Your task to perform on an android device: open app "Facebook" (install if not already installed) Image 0: 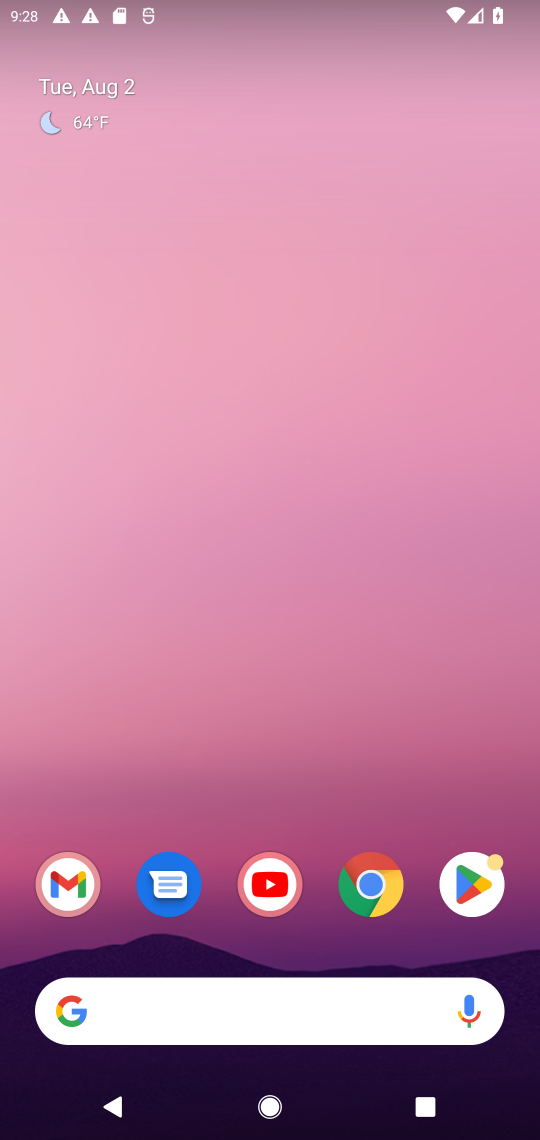
Step 0: press home button
Your task to perform on an android device: open app "Facebook" (install if not already installed) Image 1: 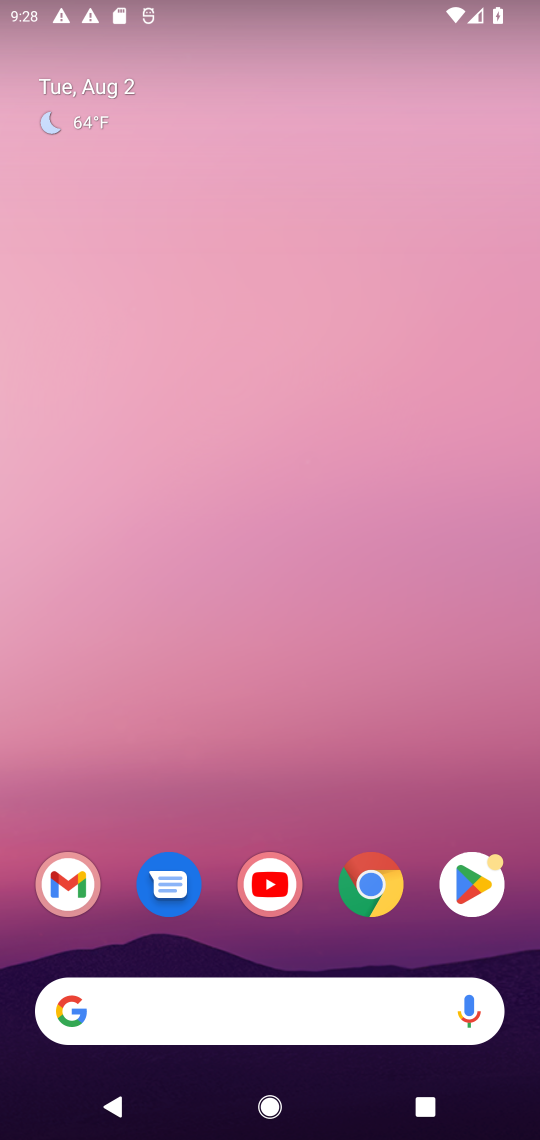
Step 1: click (476, 885)
Your task to perform on an android device: open app "Facebook" (install if not already installed) Image 2: 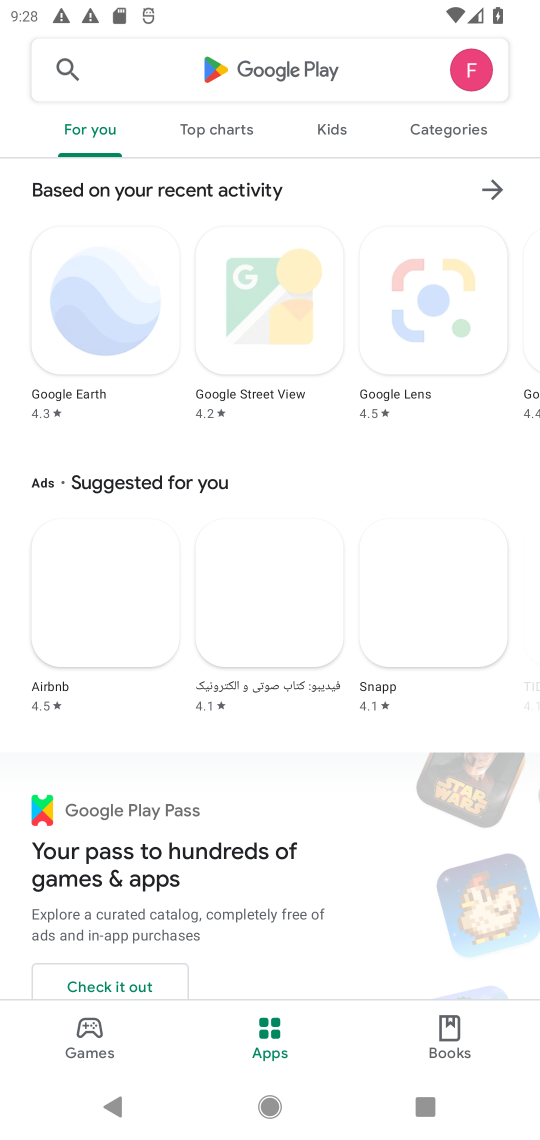
Step 2: click (327, 84)
Your task to perform on an android device: open app "Facebook" (install if not already installed) Image 3: 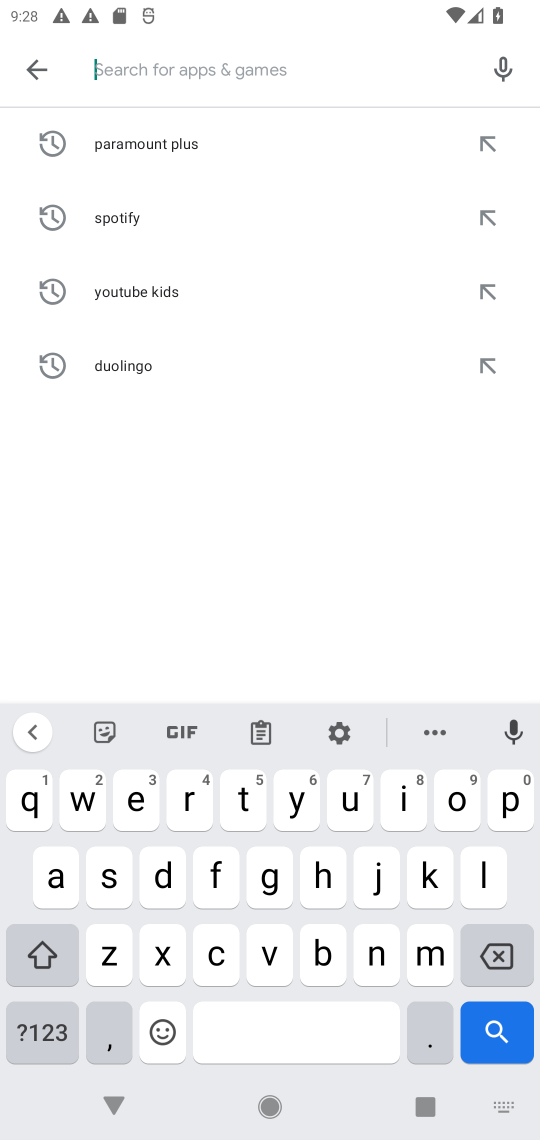
Step 3: click (211, 870)
Your task to perform on an android device: open app "Facebook" (install if not already installed) Image 4: 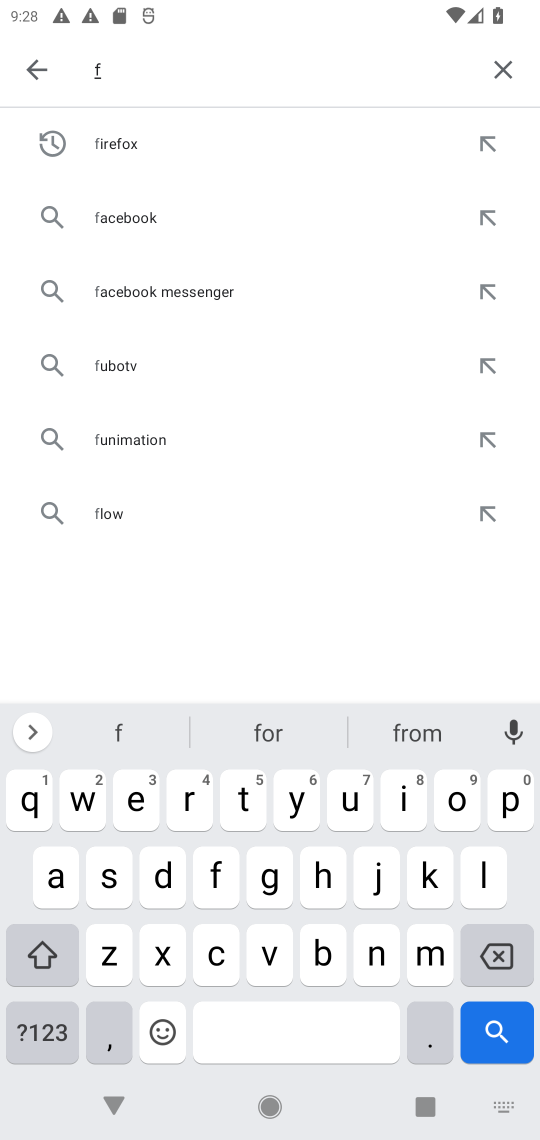
Step 4: click (51, 867)
Your task to perform on an android device: open app "Facebook" (install if not already installed) Image 5: 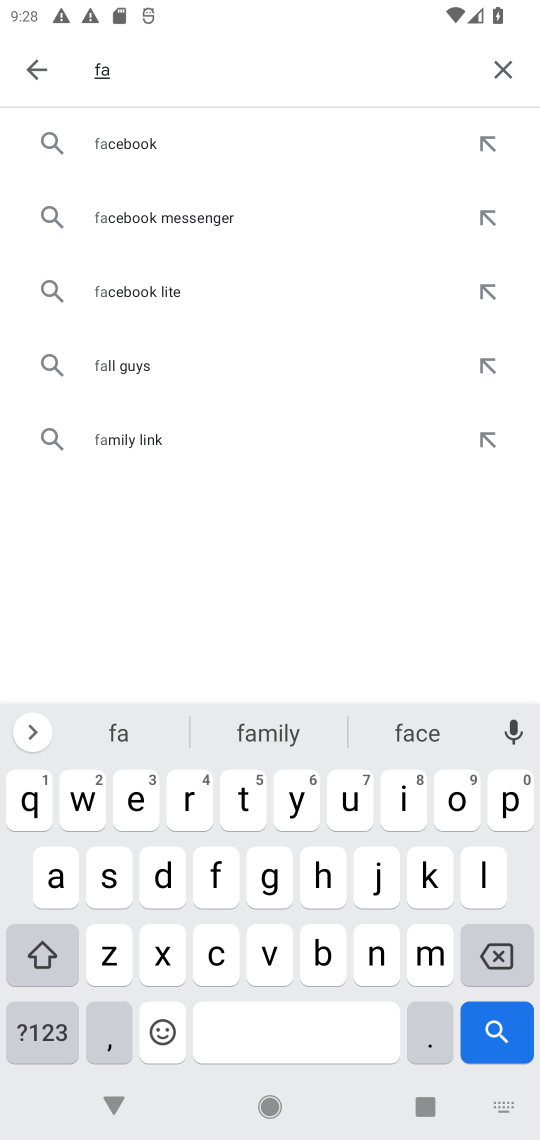
Step 5: click (215, 954)
Your task to perform on an android device: open app "Facebook" (install if not already installed) Image 6: 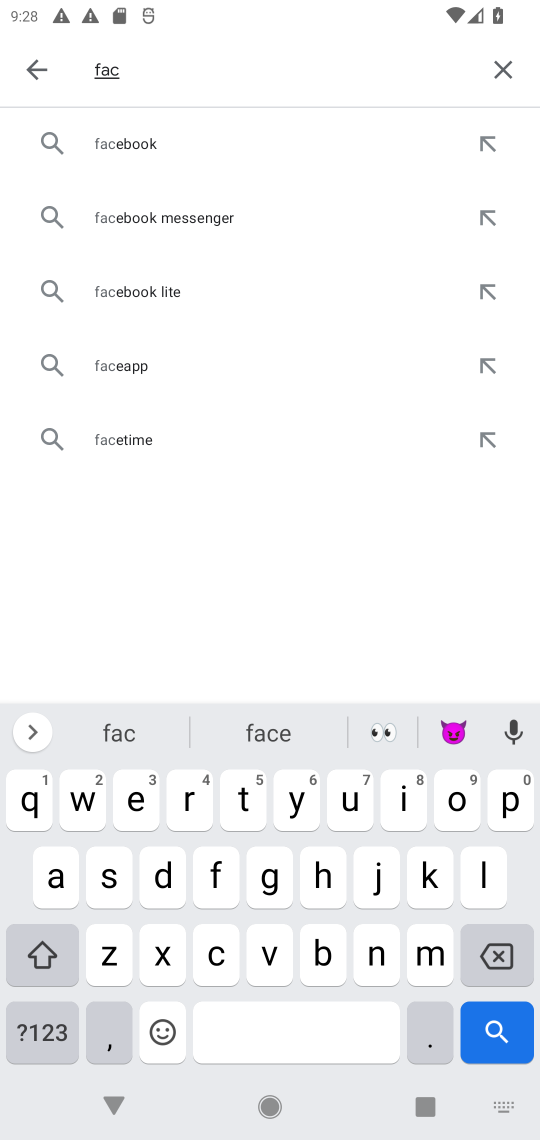
Step 6: click (138, 794)
Your task to perform on an android device: open app "Facebook" (install if not already installed) Image 7: 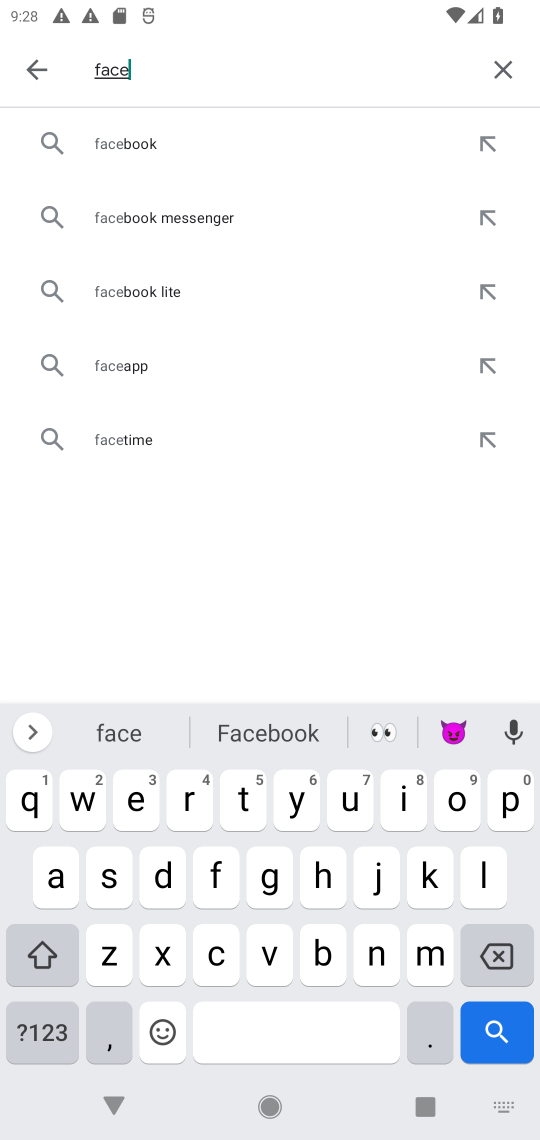
Step 7: click (157, 147)
Your task to perform on an android device: open app "Facebook" (install if not already installed) Image 8: 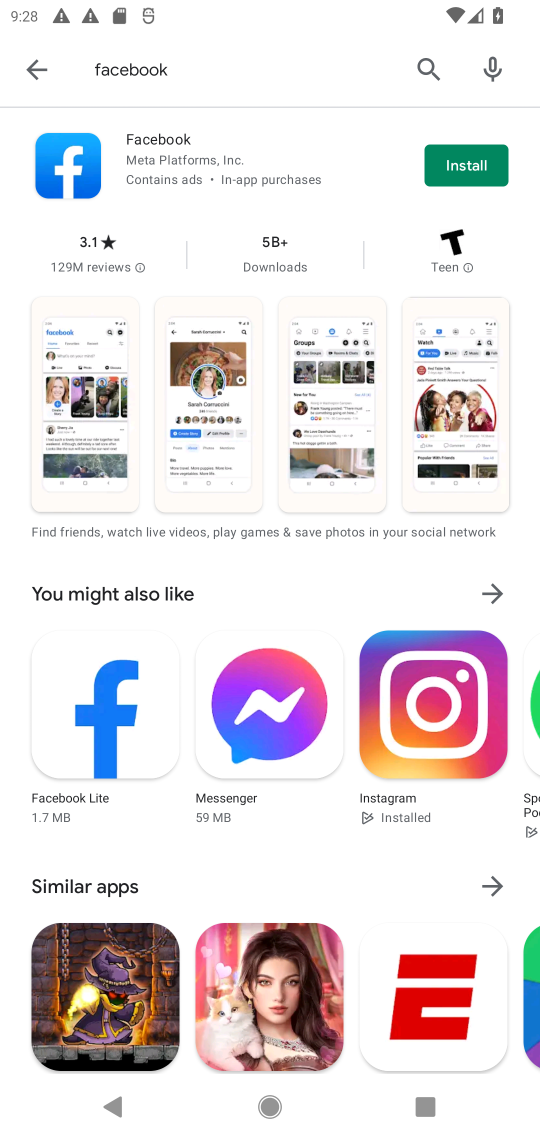
Step 8: click (469, 166)
Your task to perform on an android device: open app "Facebook" (install if not already installed) Image 9: 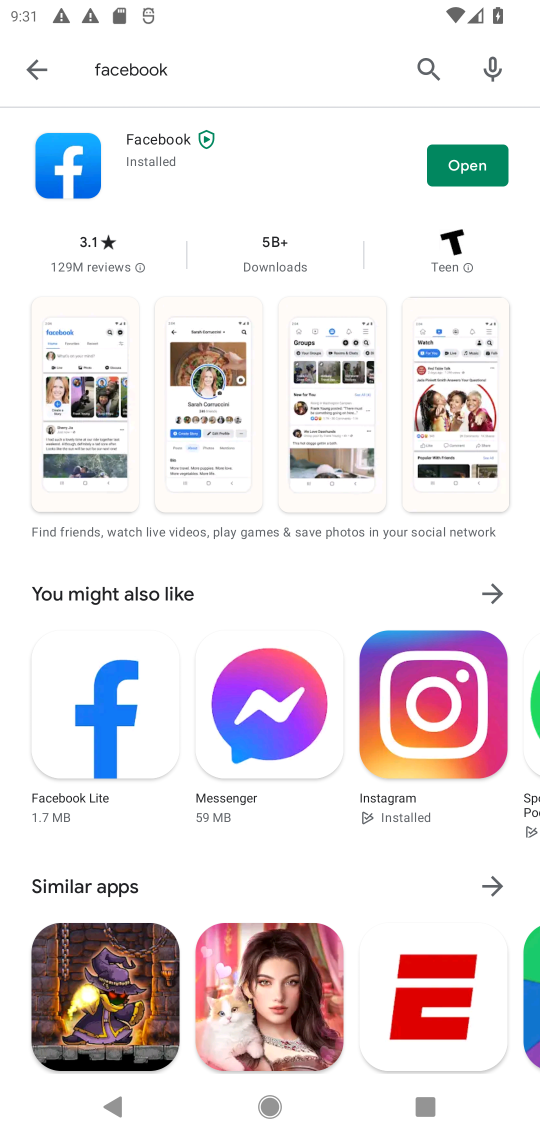
Step 9: click (469, 169)
Your task to perform on an android device: open app "Facebook" (install if not already installed) Image 10: 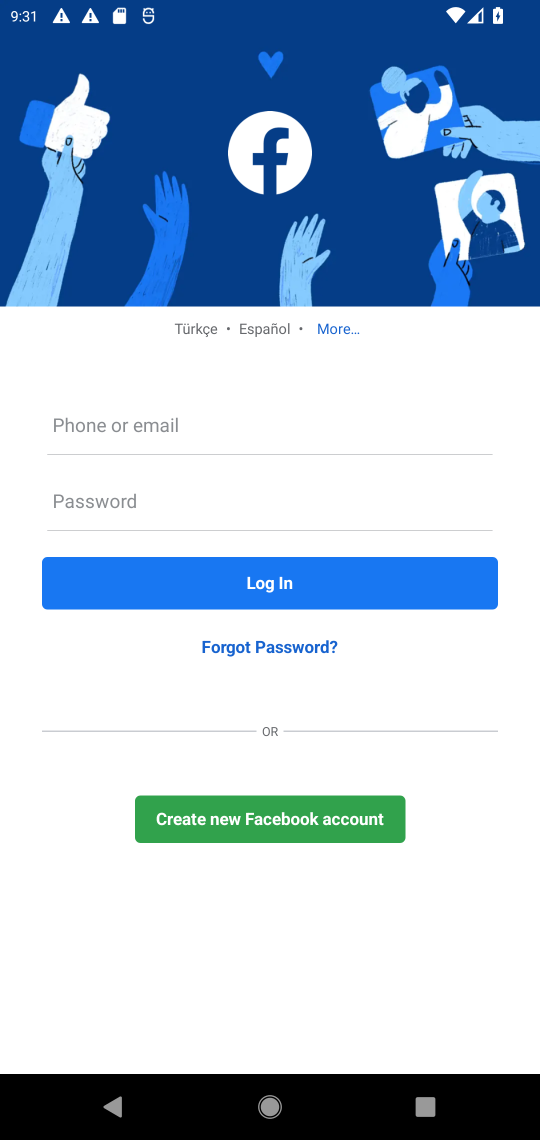
Step 10: task complete